Your task to perform on an android device: Go to network settings Image 0: 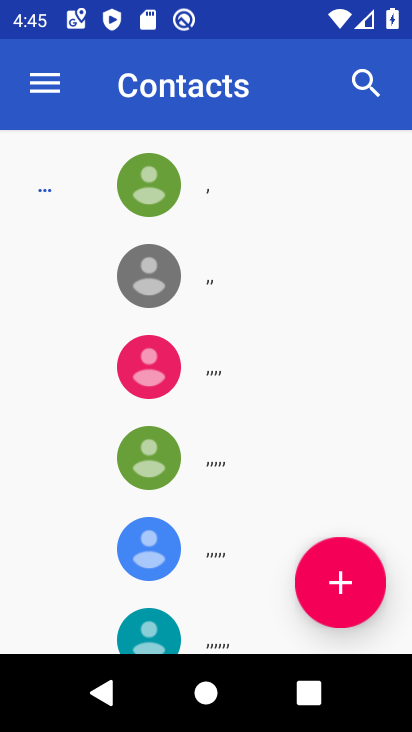
Step 0: press back button
Your task to perform on an android device: Go to network settings Image 1: 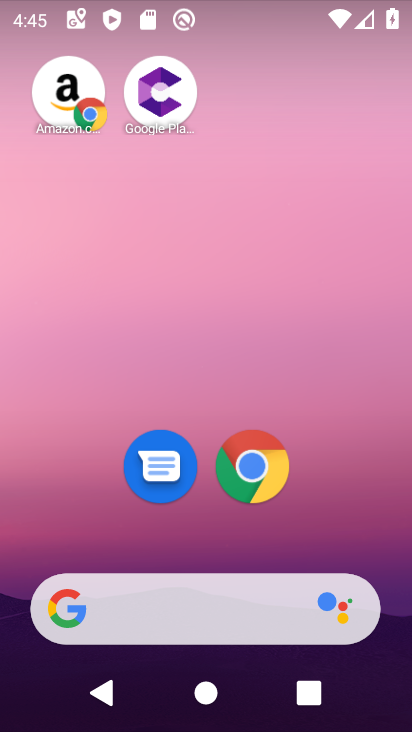
Step 1: drag from (336, 518) to (295, 24)
Your task to perform on an android device: Go to network settings Image 2: 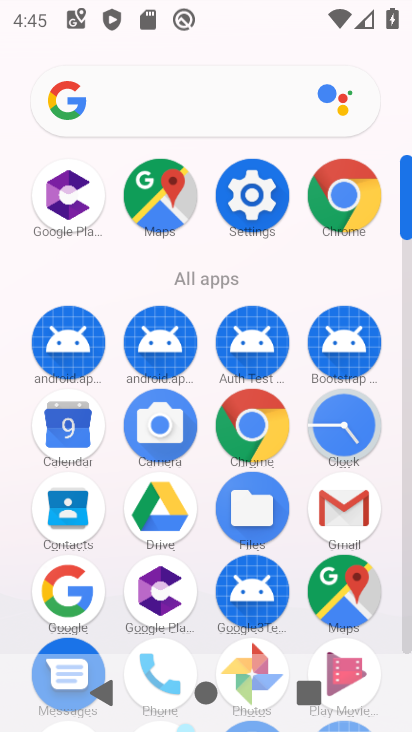
Step 2: click (251, 191)
Your task to perform on an android device: Go to network settings Image 3: 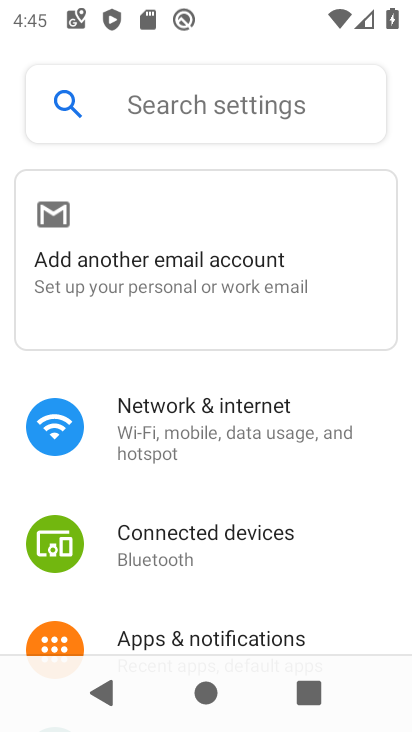
Step 3: click (187, 394)
Your task to perform on an android device: Go to network settings Image 4: 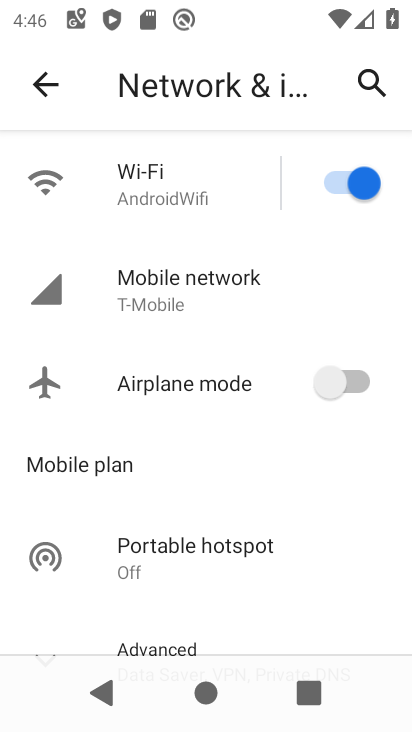
Step 4: drag from (168, 548) to (148, 162)
Your task to perform on an android device: Go to network settings Image 5: 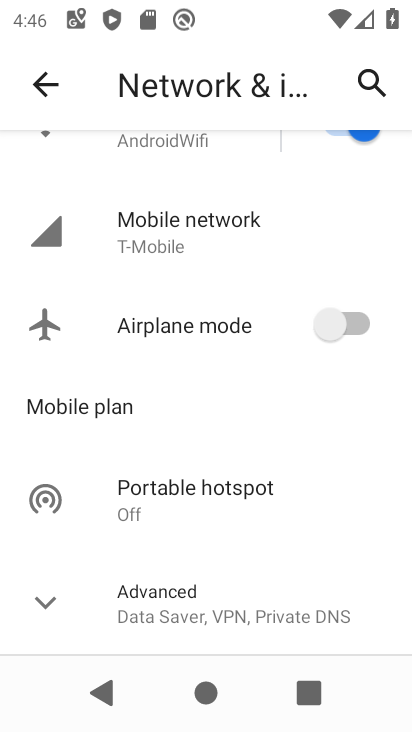
Step 5: drag from (203, 556) to (226, 187)
Your task to perform on an android device: Go to network settings Image 6: 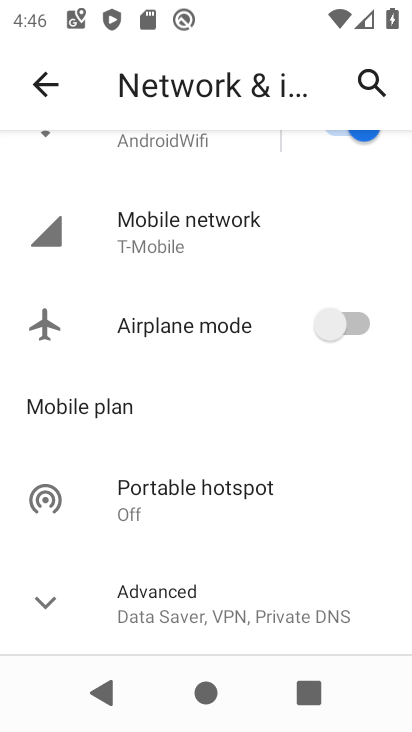
Step 6: click (43, 601)
Your task to perform on an android device: Go to network settings Image 7: 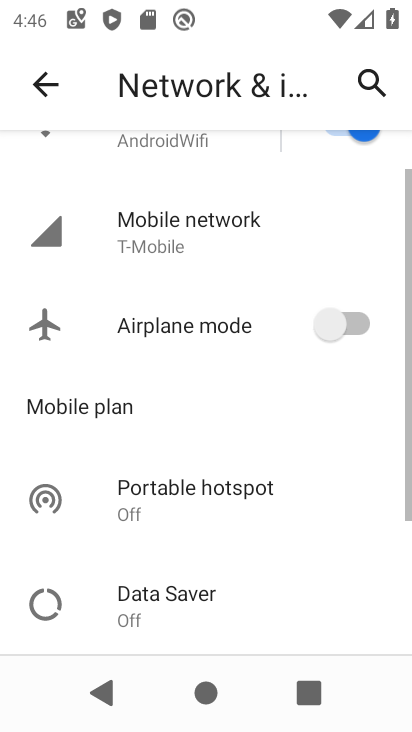
Step 7: task complete